Your task to perform on an android device: turn off improve location accuracy Image 0: 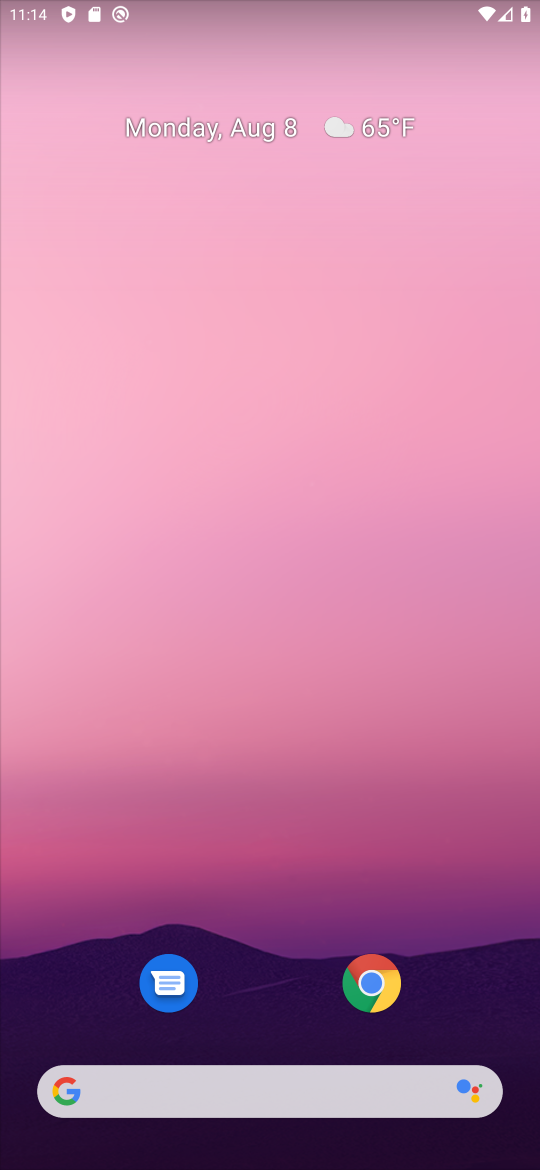
Step 0: drag from (281, 1007) to (262, 0)
Your task to perform on an android device: turn off improve location accuracy Image 1: 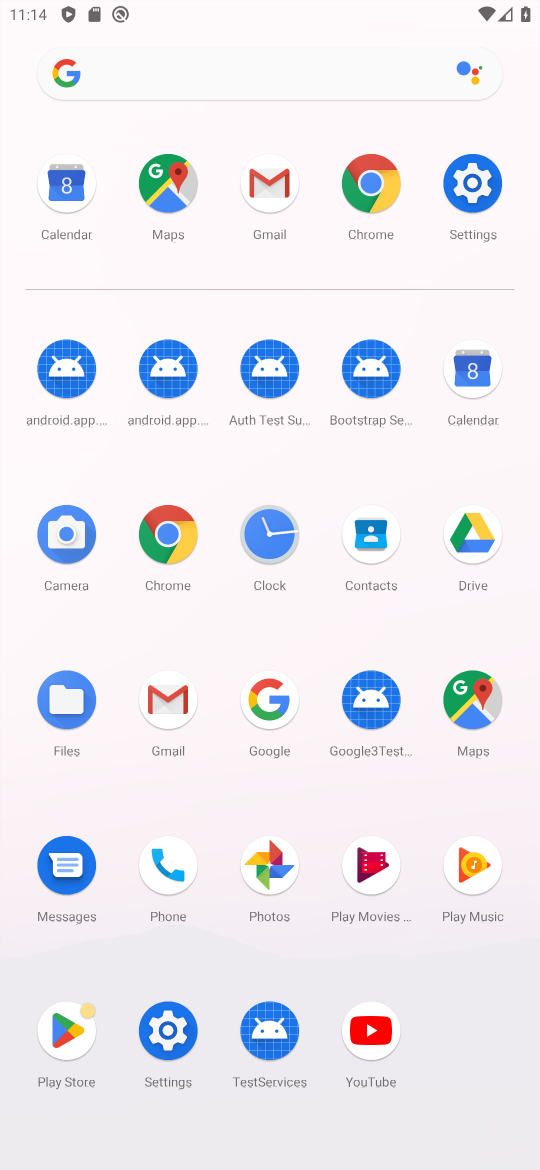
Step 1: click (459, 177)
Your task to perform on an android device: turn off improve location accuracy Image 2: 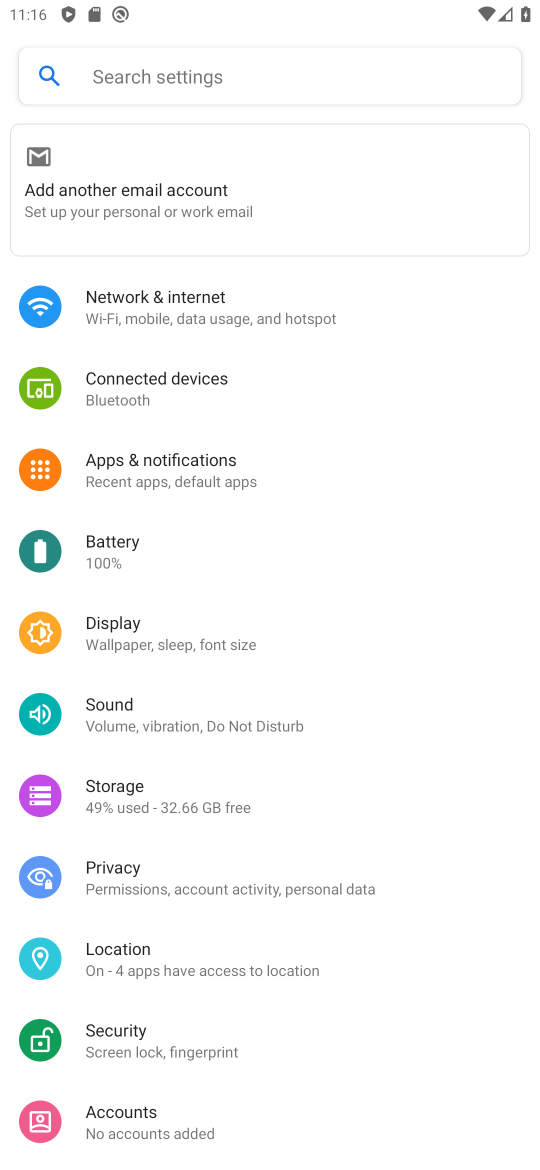
Step 2: click (218, 944)
Your task to perform on an android device: turn off improve location accuracy Image 3: 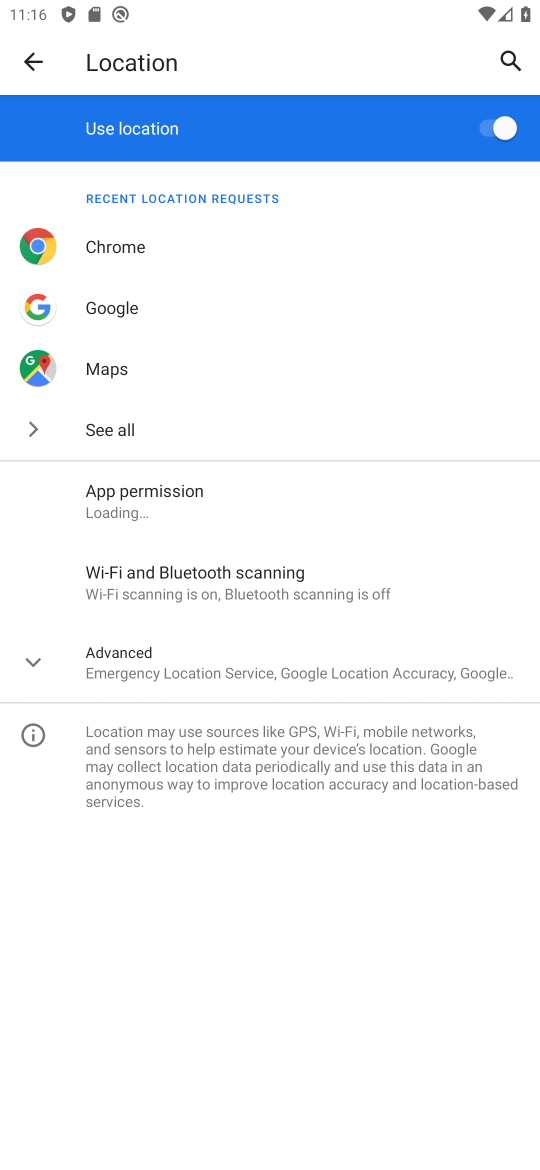
Step 3: task complete